Your task to perform on an android device: Open calendar and show me the second week of next month Image 0: 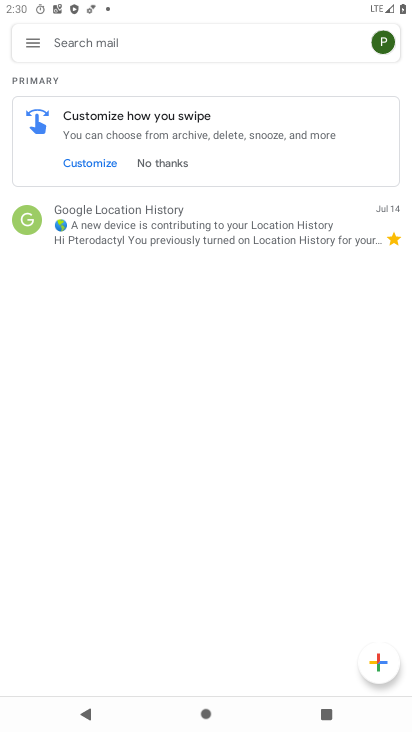
Step 0: press home button
Your task to perform on an android device: Open calendar and show me the second week of next month Image 1: 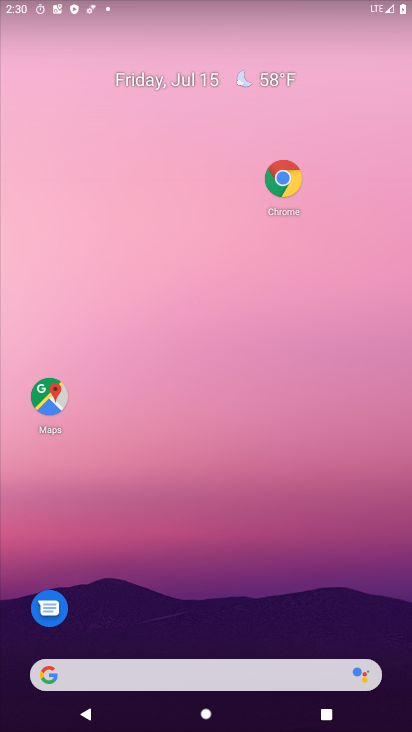
Step 1: drag from (250, 618) to (280, 7)
Your task to perform on an android device: Open calendar and show me the second week of next month Image 2: 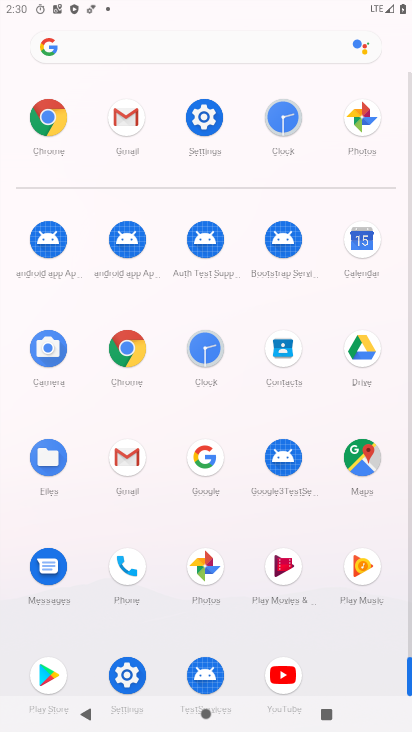
Step 2: click (354, 242)
Your task to perform on an android device: Open calendar and show me the second week of next month Image 3: 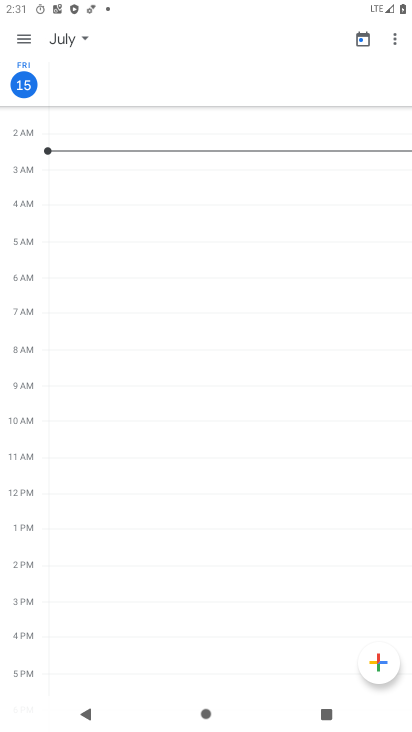
Step 3: click (72, 34)
Your task to perform on an android device: Open calendar and show me the second week of next month Image 4: 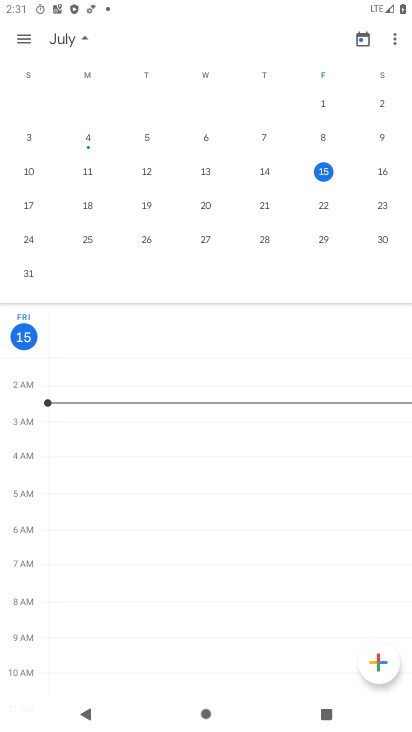
Step 4: drag from (294, 170) to (1, 128)
Your task to perform on an android device: Open calendar and show me the second week of next month Image 5: 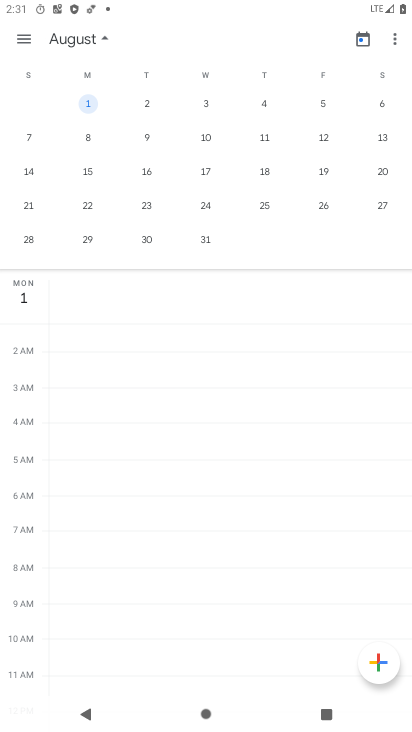
Step 5: click (321, 136)
Your task to perform on an android device: Open calendar and show me the second week of next month Image 6: 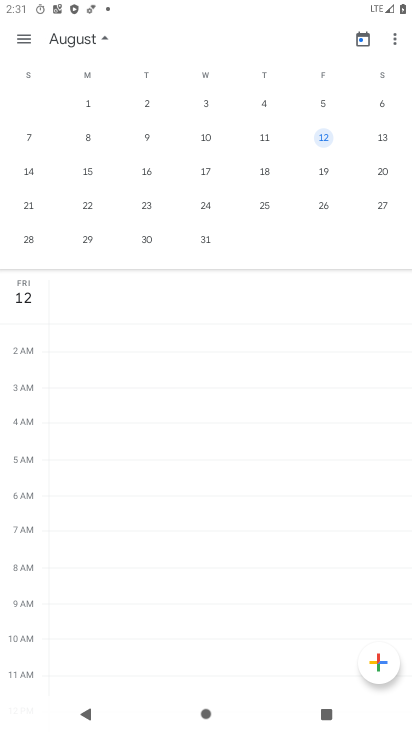
Step 6: task complete